Your task to perform on an android device: What's the weather today? Image 0: 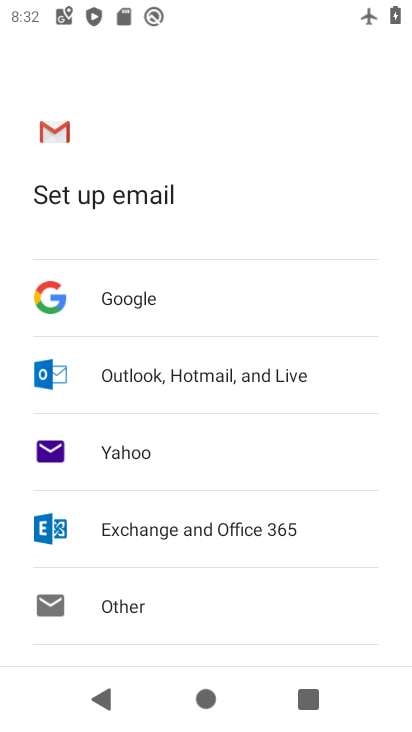
Step 0: press home button
Your task to perform on an android device: What's the weather today? Image 1: 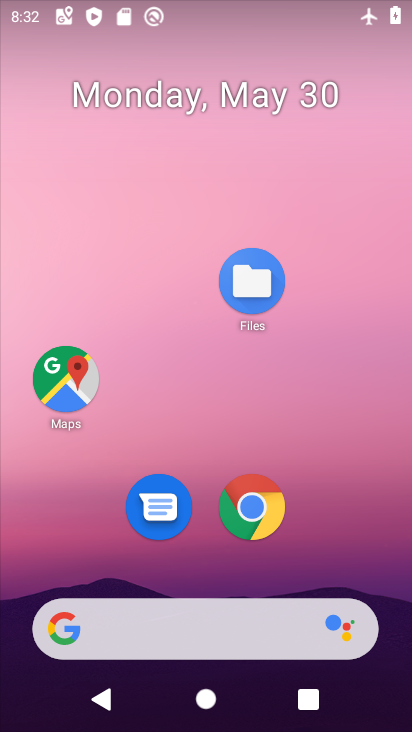
Step 1: click (182, 617)
Your task to perform on an android device: What's the weather today? Image 2: 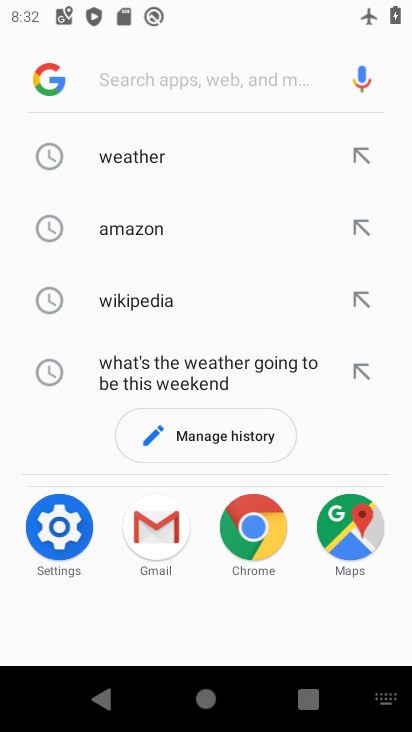
Step 2: click (139, 168)
Your task to perform on an android device: What's the weather today? Image 3: 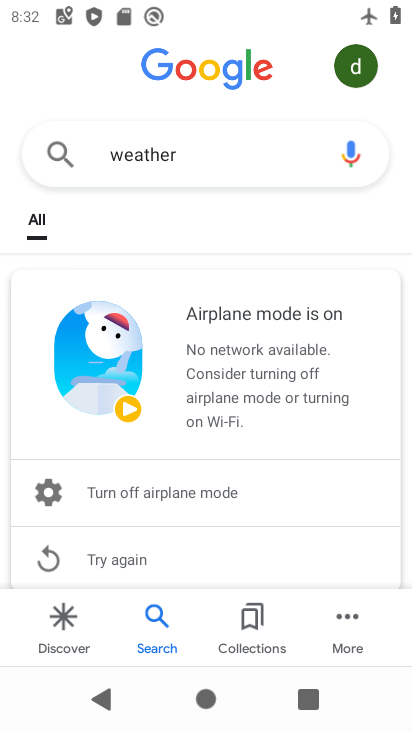
Step 3: task complete